Your task to perform on an android device: delete the emails in spam in the gmail app Image 0: 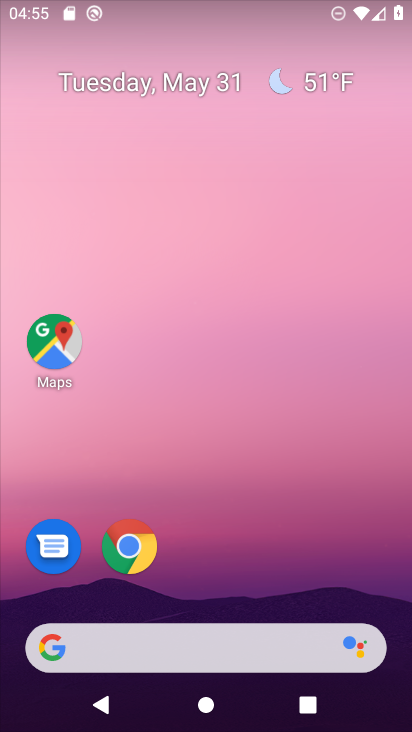
Step 0: drag from (218, 589) to (283, 224)
Your task to perform on an android device: delete the emails in spam in the gmail app Image 1: 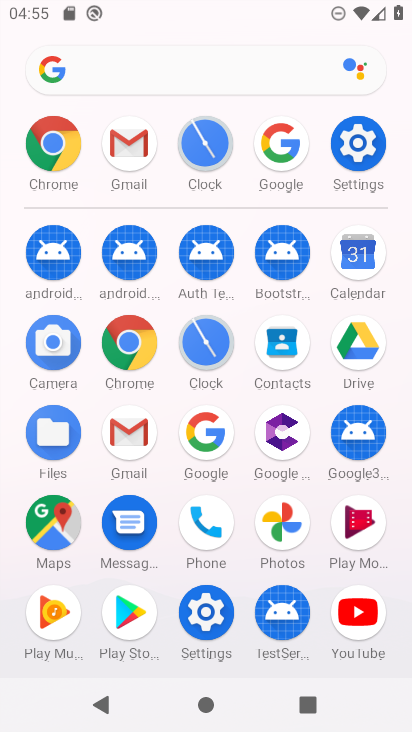
Step 1: click (127, 440)
Your task to perform on an android device: delete the emails in spam in the gmail app Image 2: 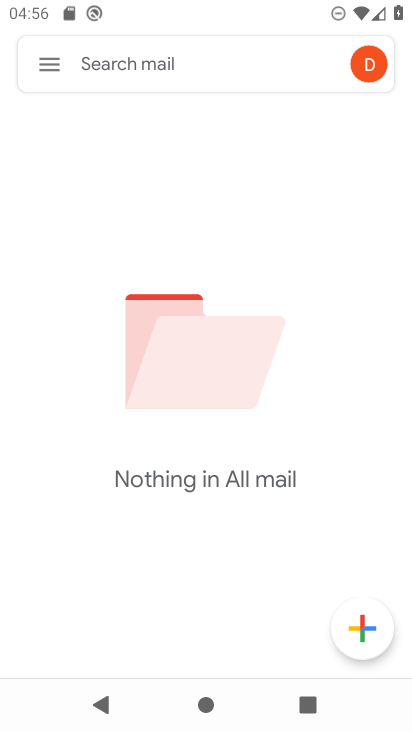
Step 2: click (39, 67)
Your task to perform on an android device: delete the emails in spam in the gmail app Image 3: 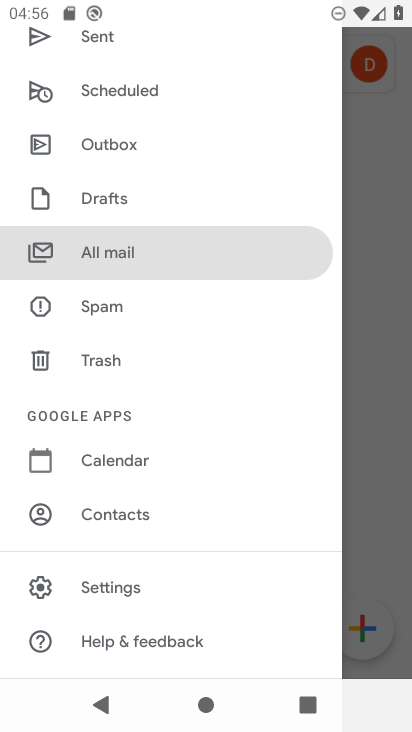
Step 3: click (117, 257)
Your task to perform on an android device: delete the emails in spam in the gmail app Image 4: 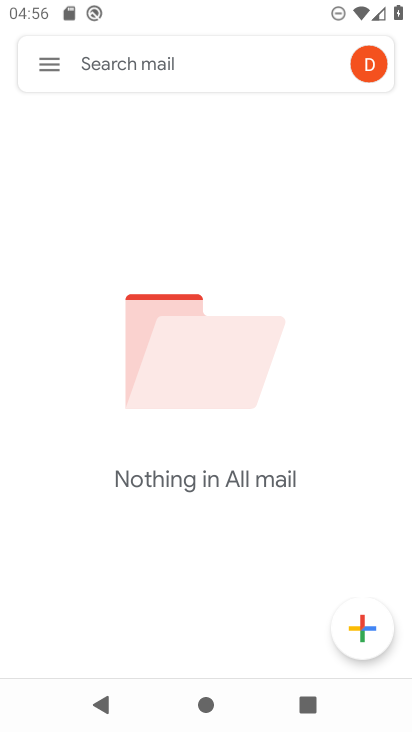
Step 4: click (102, 314)
Your task to perform on an android device: delete the emails in spam in the gmail app Image 5: 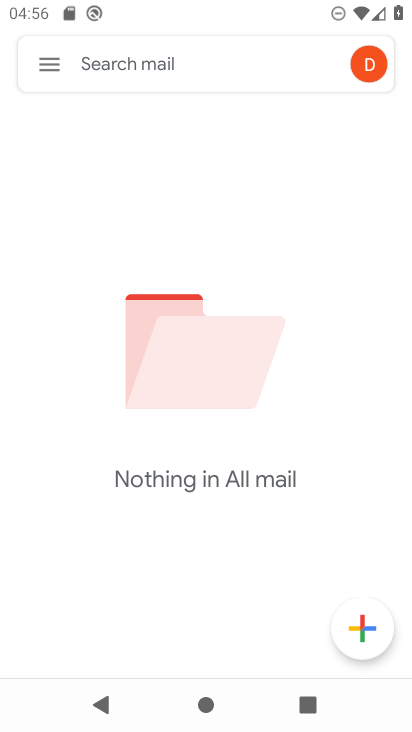
Step 5: click (46, 70)
Your task to perform on an android device: delete the emails in spam in the gmail app Image 6: 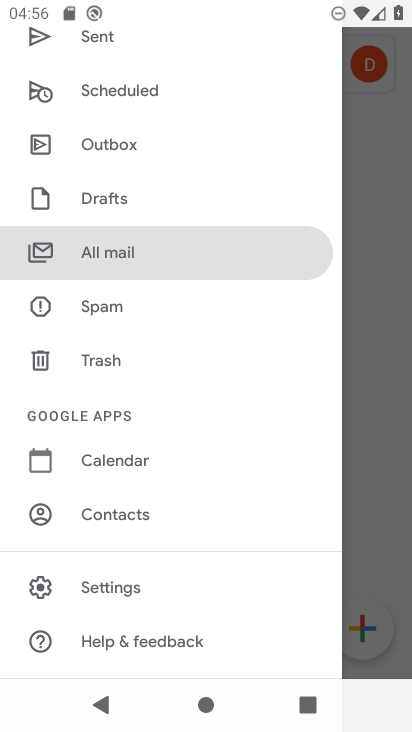
Step 6: click (110, 317)
Your task to perform on an android device: delete the emails in spam in the gmail app Image 7: 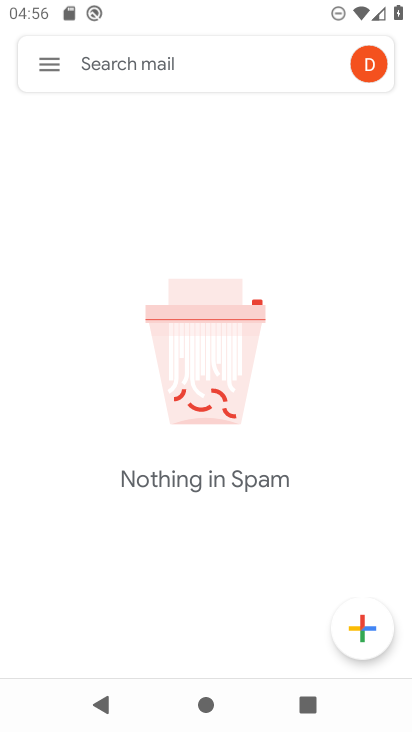
Step 7: task complete